Your task to perform on an android device: Open the calendar app, open the side menu, and click the "Day" option Image 0: 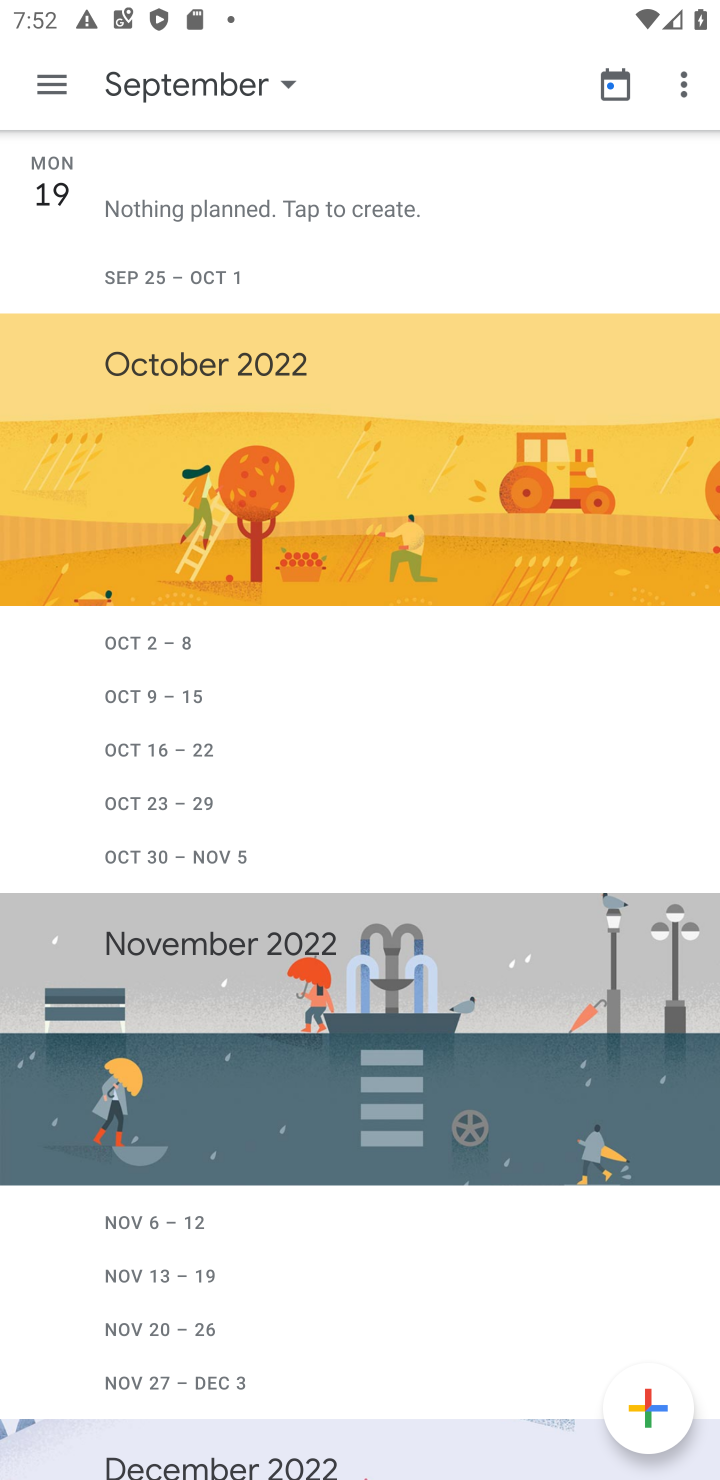
Step 0: press home button
Your task to perform on an android device: Open the calendar app, open the side menu, and click the "Day" option Image 1: 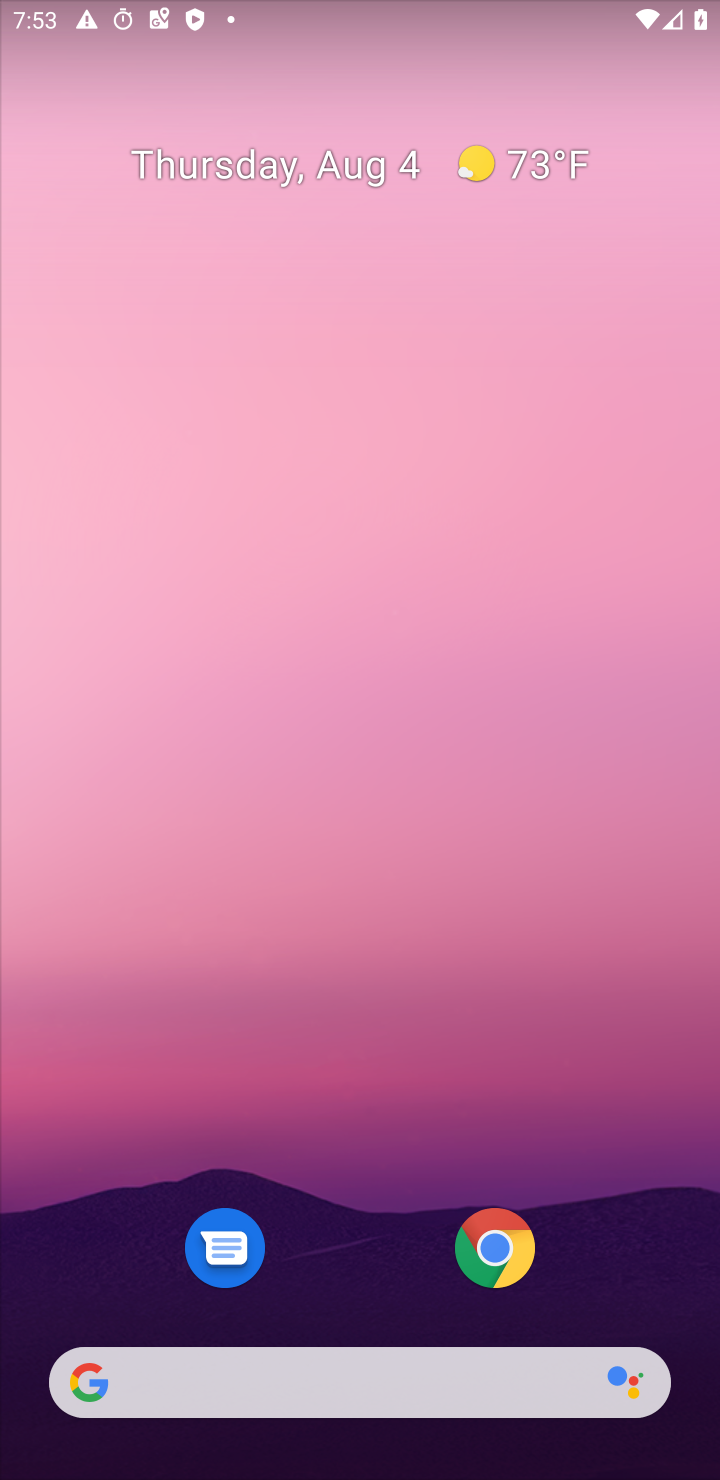
Step 1: drag from (434, 1206) to (436, 433)
Your task to perform on an android device: Open the calendar app, open the side menu, and click the "Day" option Image 2: 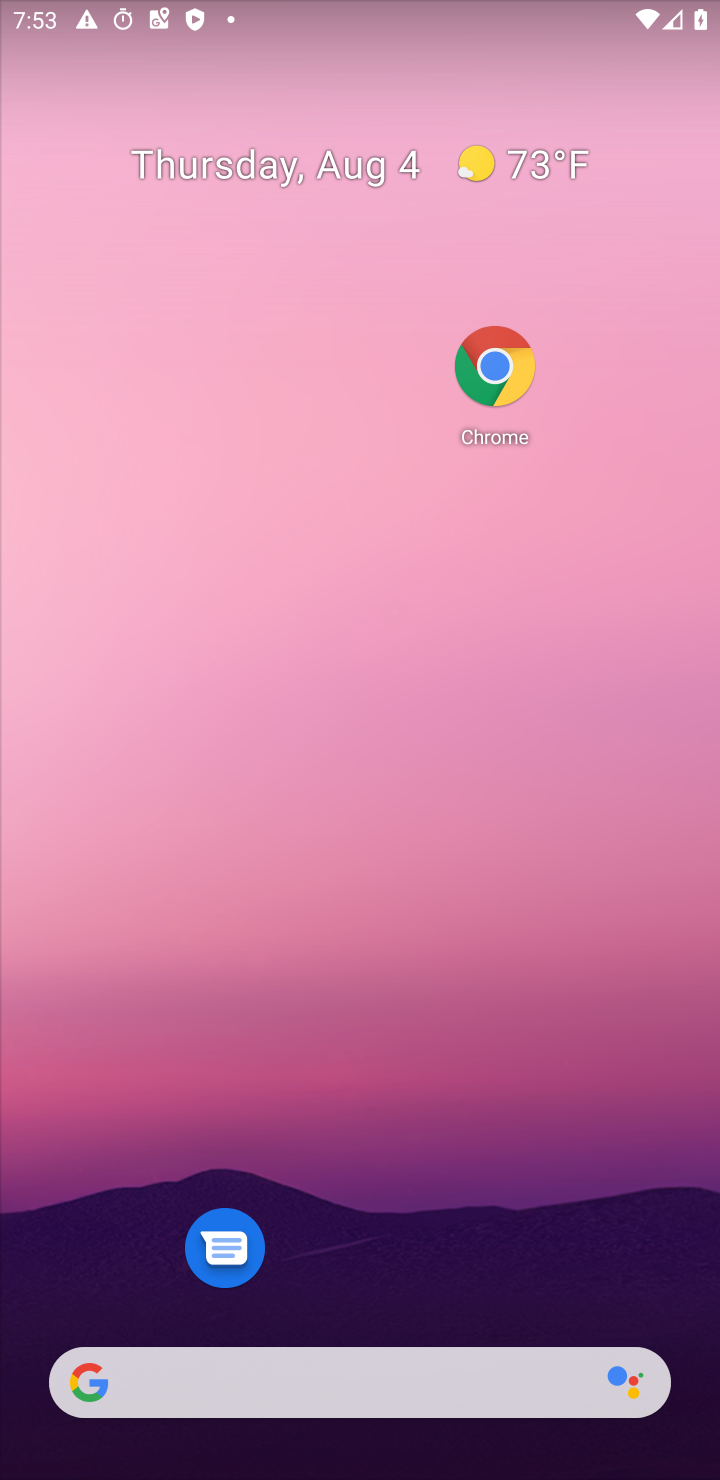
Step 2: drag from (311, 864) to (272, 358)
Your task to perform on an android device: Open the calendar app, open the side menu, and click the "Day" option Image 3: 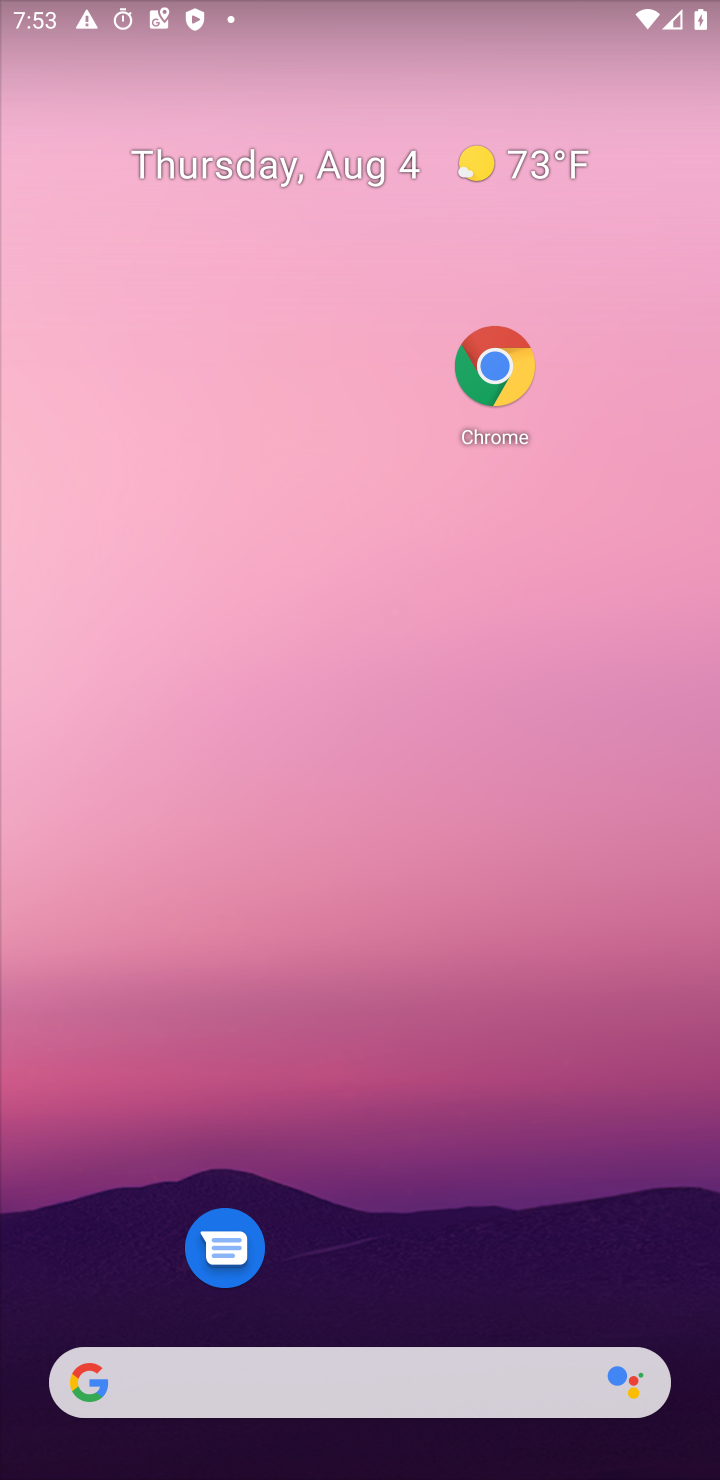
Step 3: drag from (252, 1298) to (254, 209)
Your task to perform on an android device: Open the calendar app, open the side menu, and click the "Day" option Image 4: 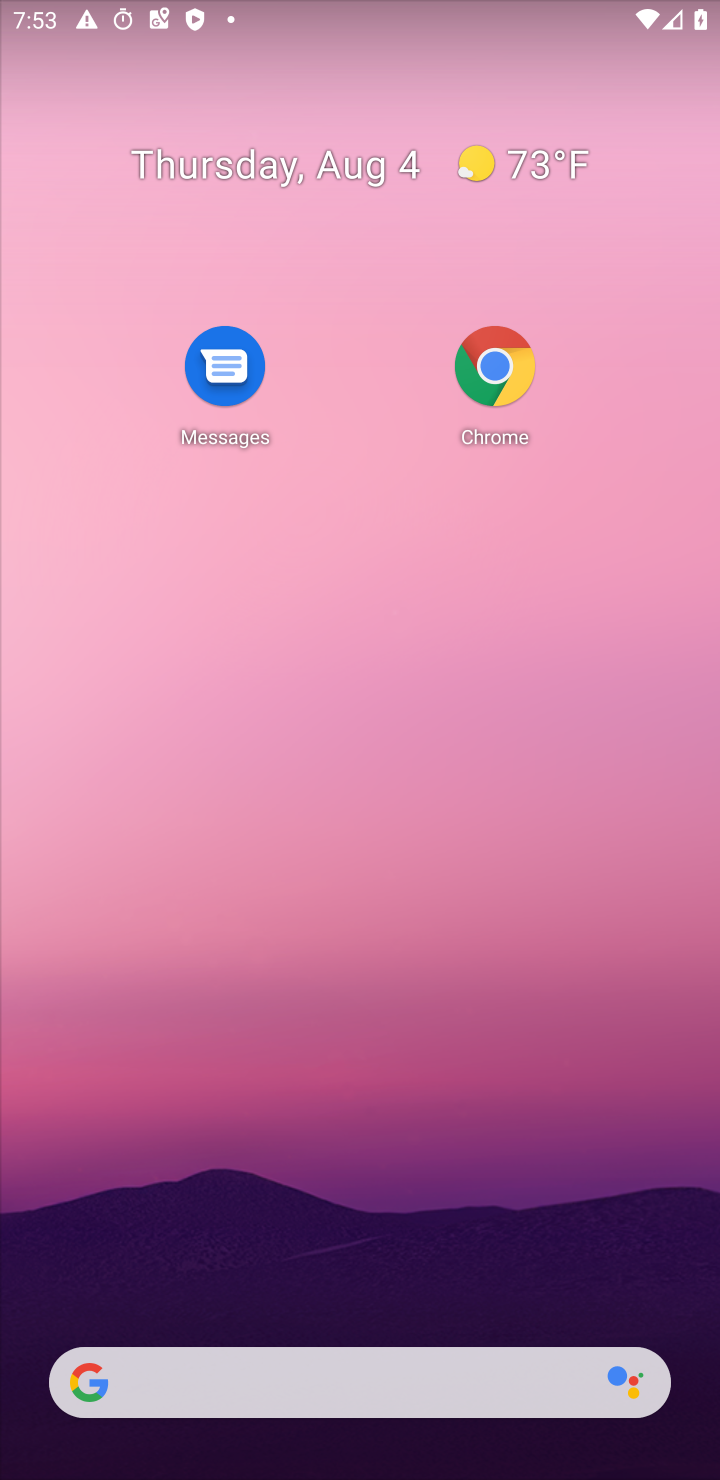
Step 4: drag from (313, 1414) to (222, 430)
Your task to perform on an android device: Open the calendar app, open the side menu, and click the "Day" option Image 5: 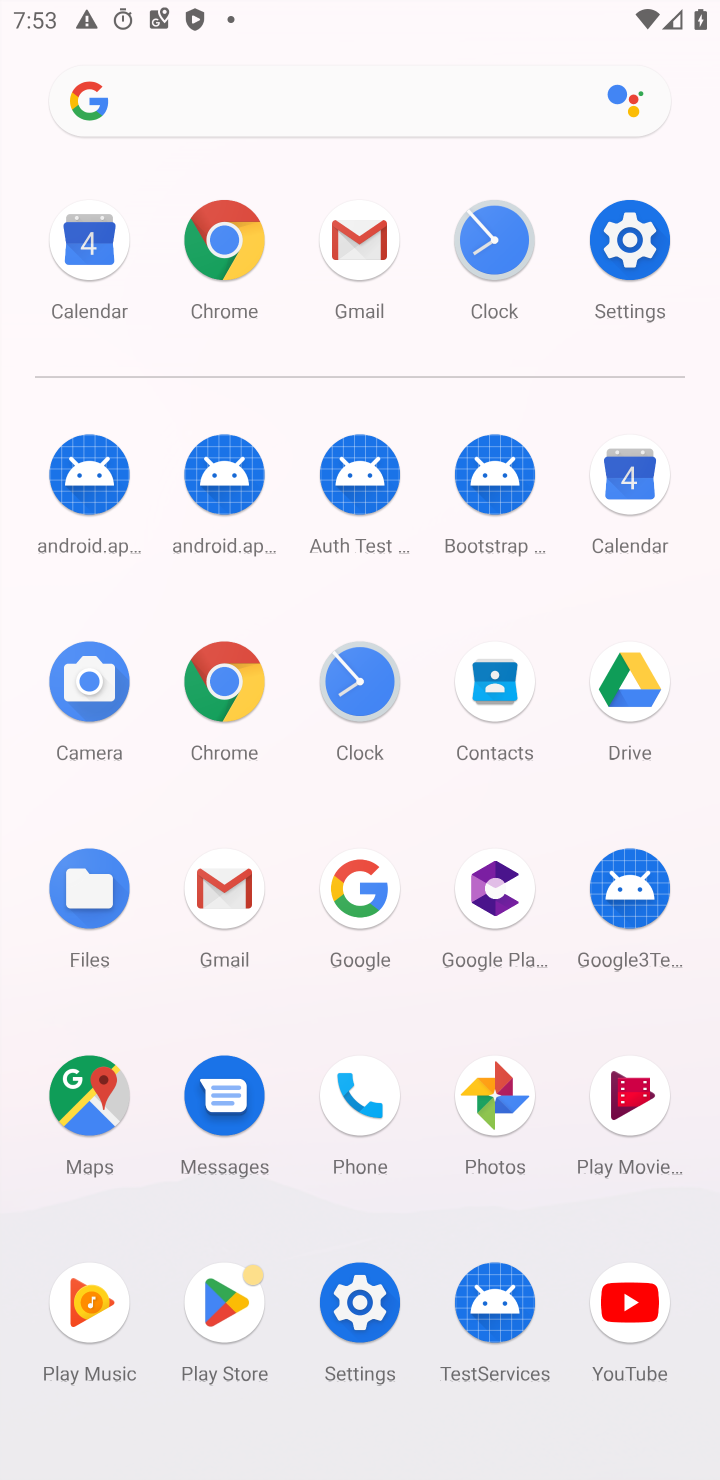
Step 5: click (608, 481)
Your task to perform on an android device: Open the calendar app, open the side menu, and click the "Day" option Image 6: 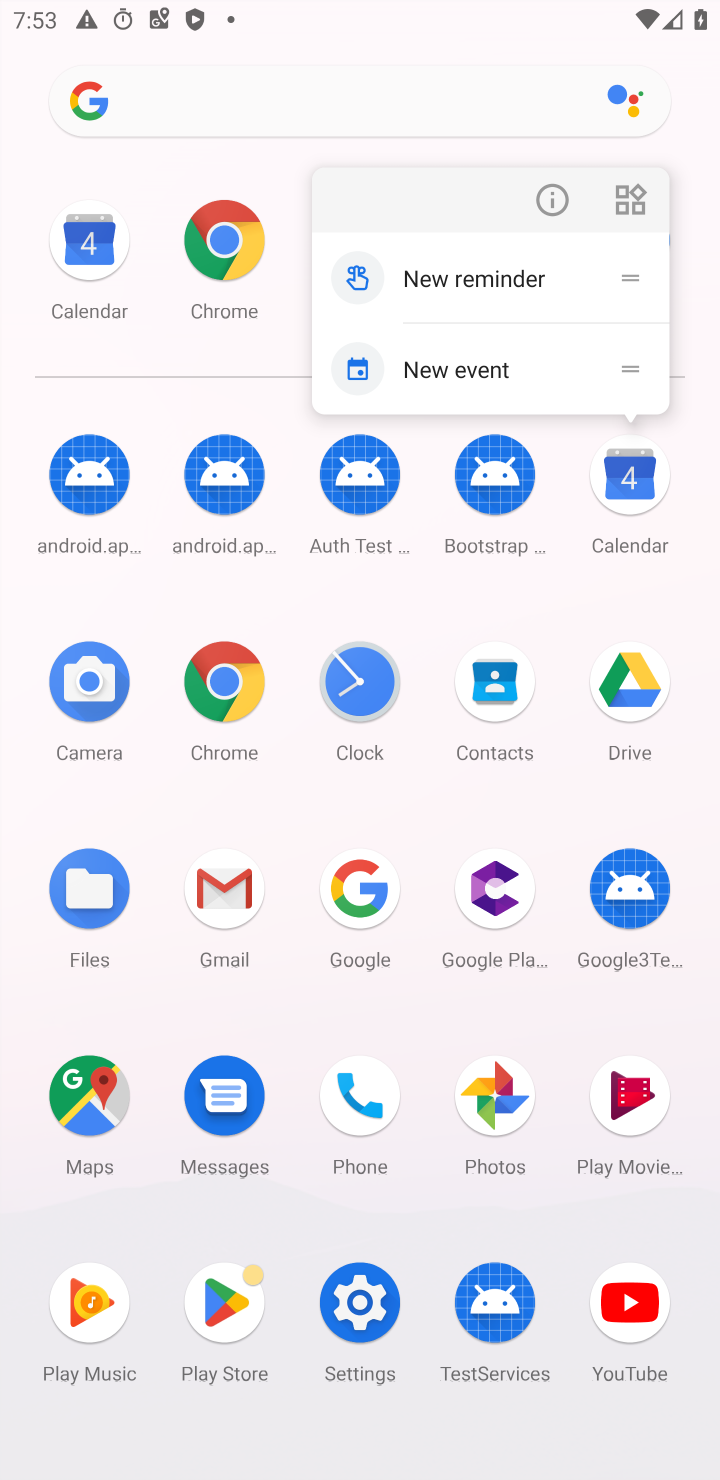
Step 6: click (625, 517)
Your task to perform on an android device: Open the calendar app, open the side menu, and click the "Day" option Image 7: 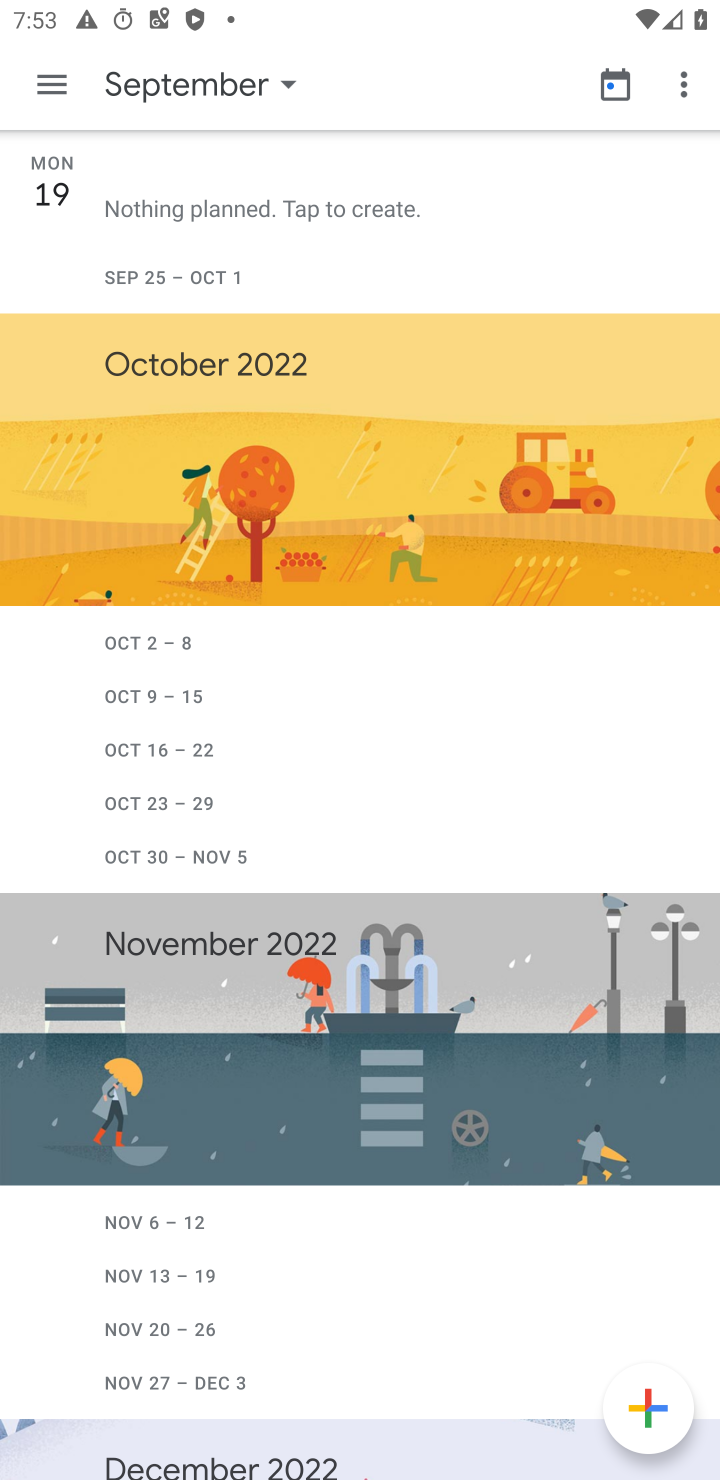
Step 7: click (38, 107)
Your task to perform on an android device: Open the calendar app, open the side menu, and click the "Day" option Image 8: 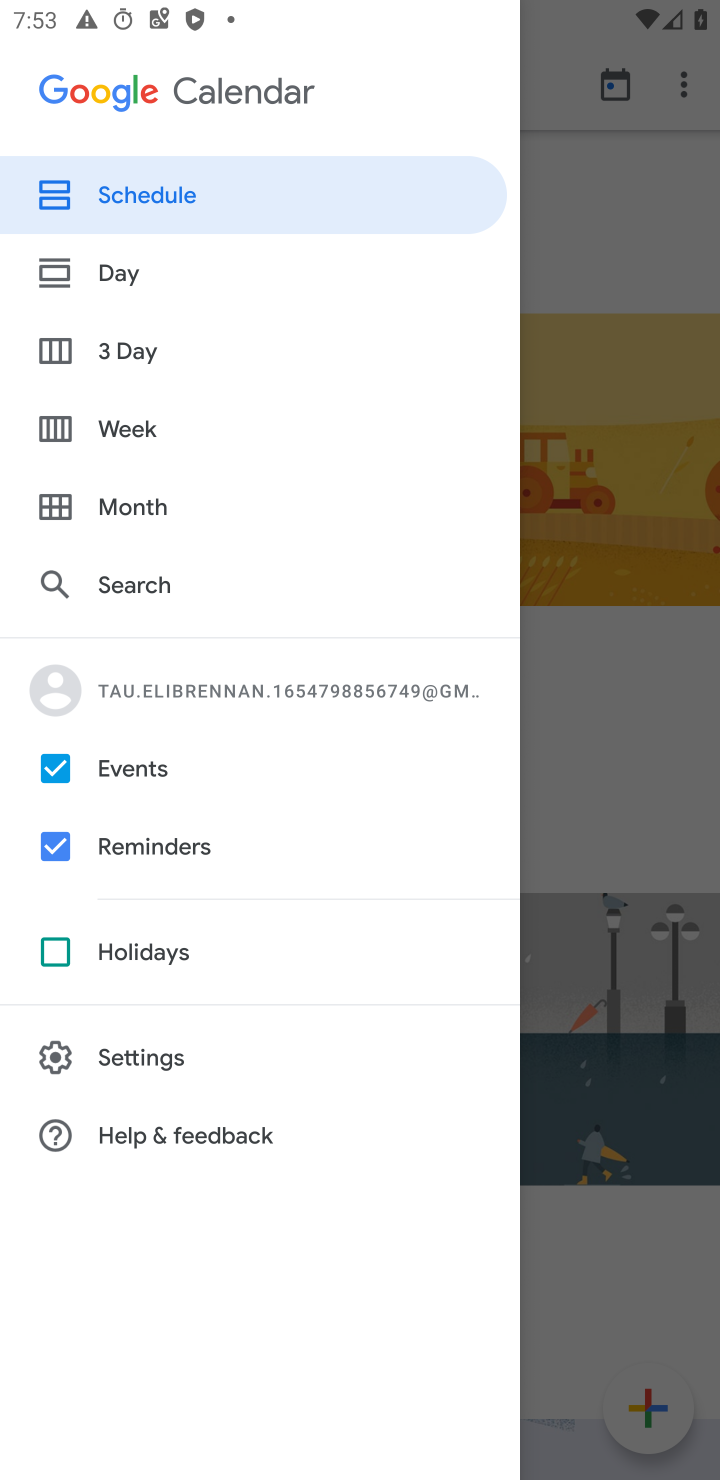
Step 8: click (147, 261)
Your task to perform on an android device: Open the calendar app, open the side menu, and click the "Day" option Image 9: 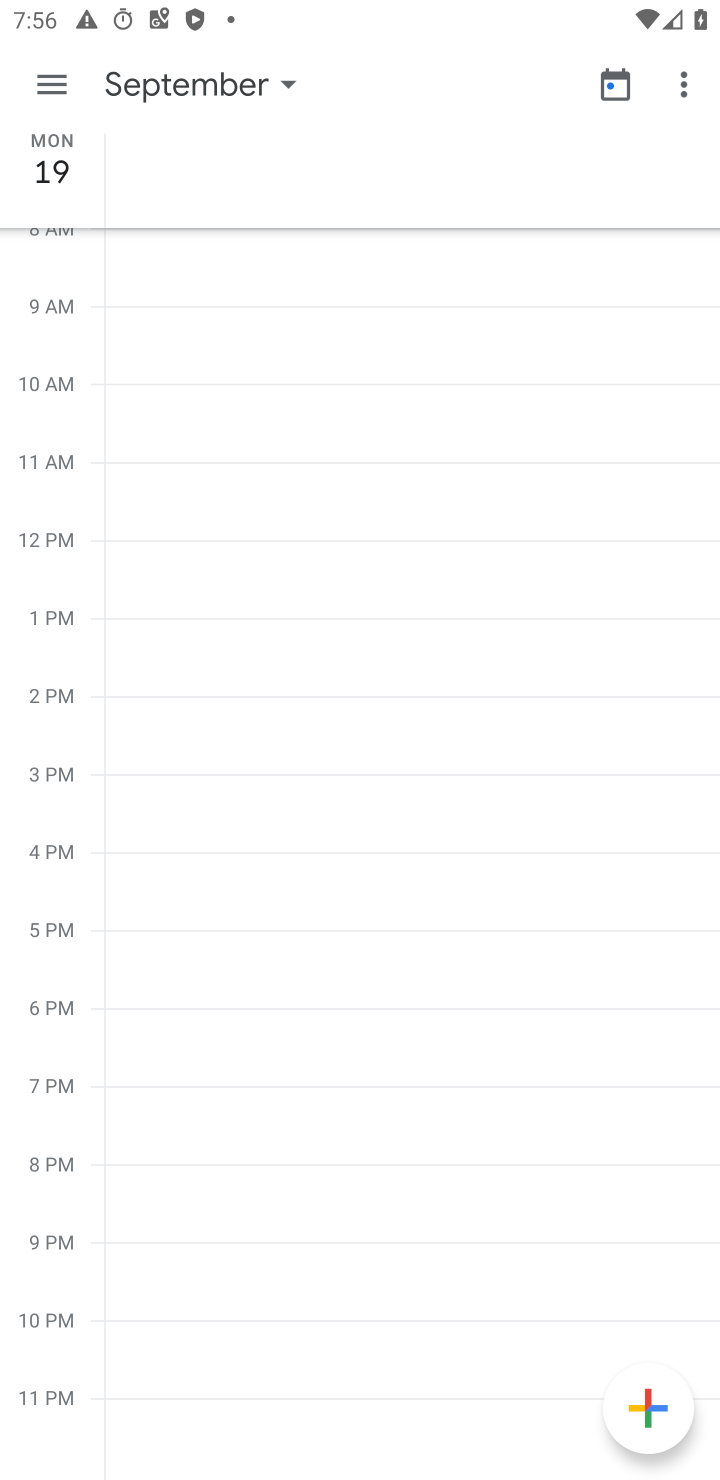
Step 9: task complete